Your task to perform on an android device: Open Google Maps Image 0: 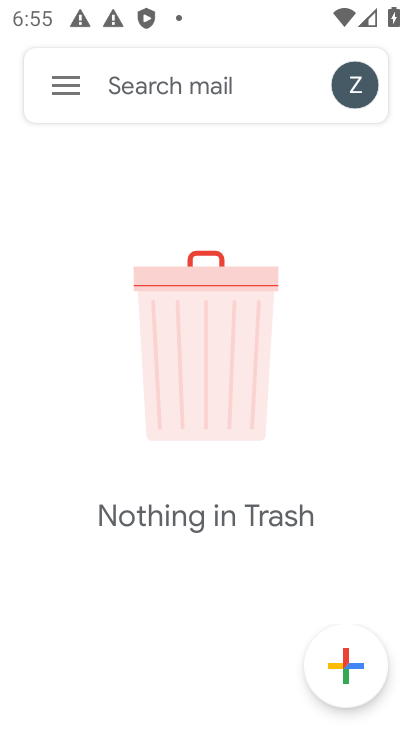
Step 0: press home button
Your task to perform on an android device: Open Google Maps Image 1: 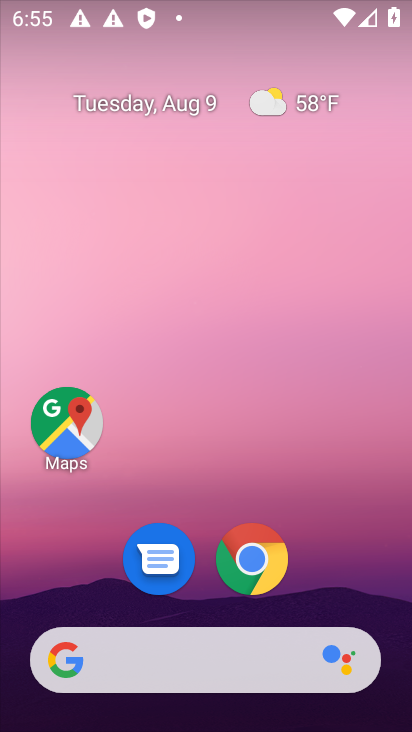
Step 1: click (53, 431)
Your task to perform on an android device: Open Google Maps Image 2: 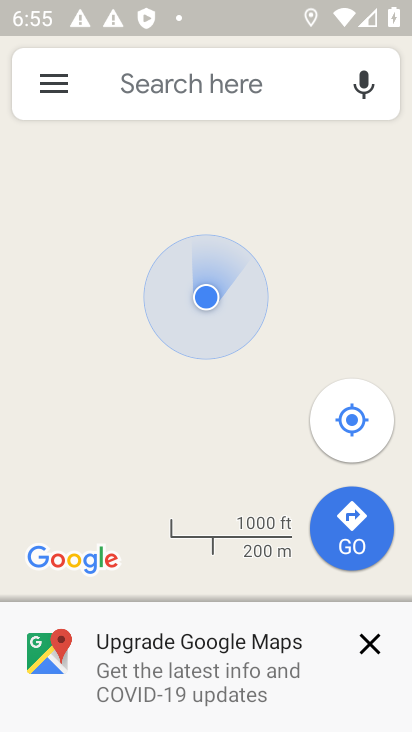
Step 2: task complete